Your task to perform on an android device: turn on javascript in the chrome app Image 0: 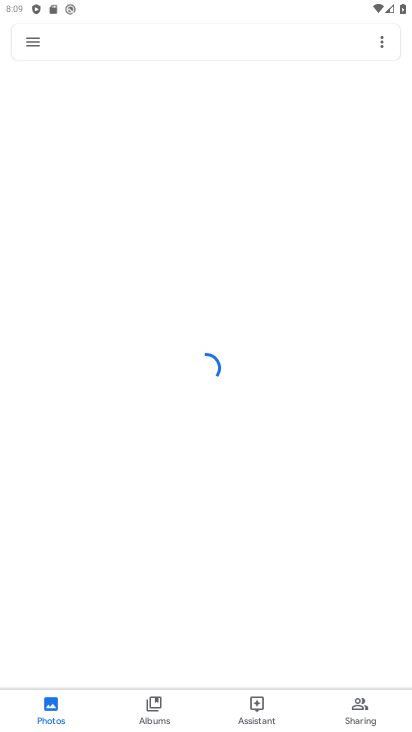
Step 0: press back button
Your task to perform on an android device: turn on javascript in the chrome app Image 1: 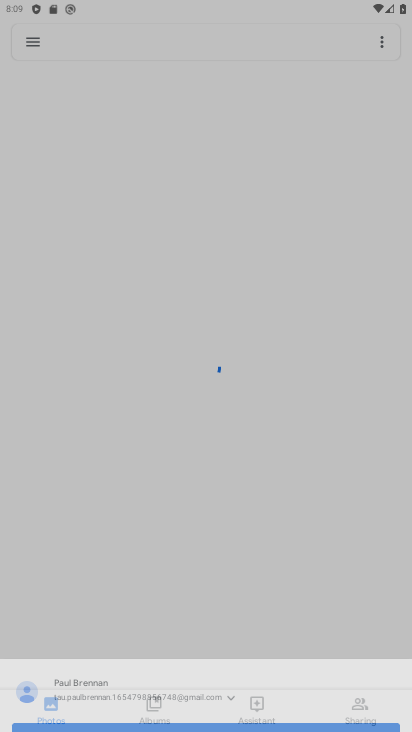
Step 1: press back button
Your task to perform on an android device: turn on javascript in the chrome app Image 2: 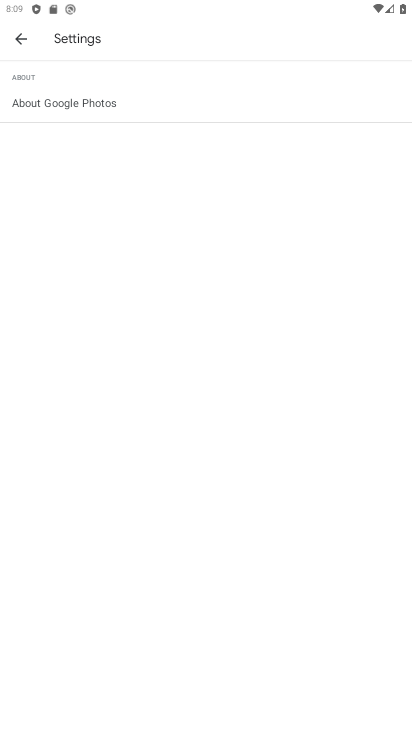
Step 2: click (20, 40)
Your task to perform on an android device: turn on javascript in the chrome app Image 3: 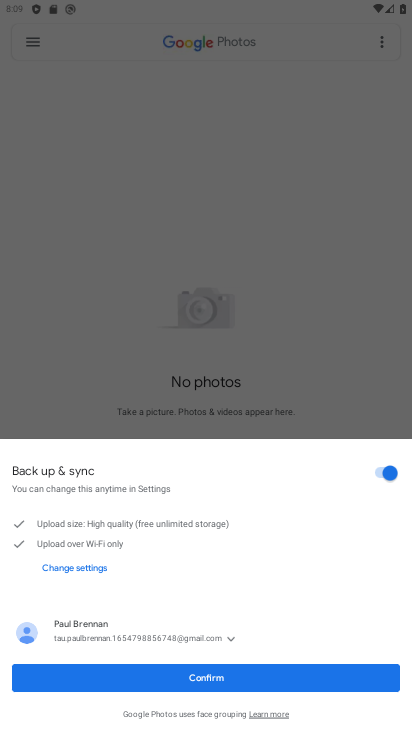
Step 3: click (228, 234)
Your task to perform on an android device: turn on javascript in the chrome app Image 4: 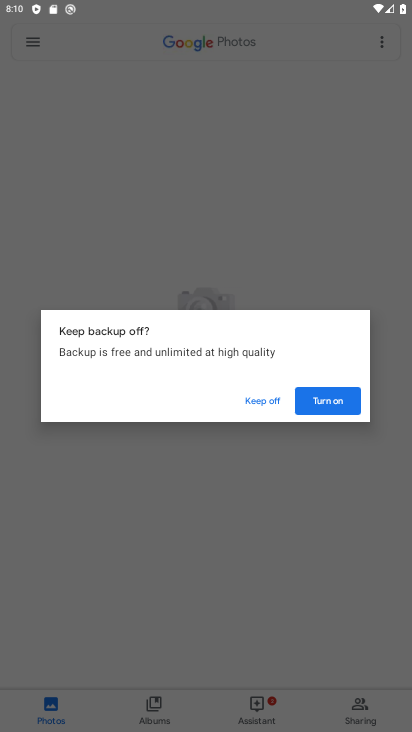
Step 4: click (251, 393)
Your task to perform on an android device: turn on javascript in the chrome app Image 5: 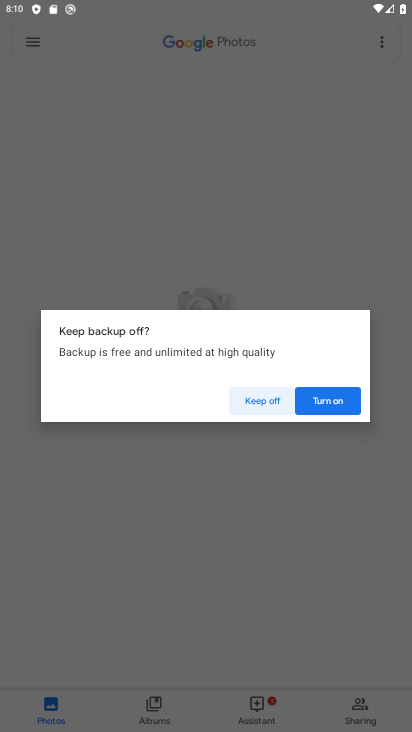
Step 5: click (253, 395)
Your task to perform on an android device: turn on javascript in the chrome app Image 6: 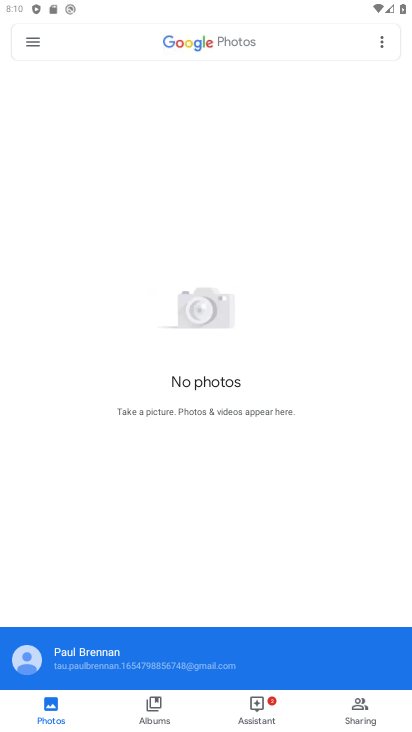
Step 6: click (253, 402)
Your task to perform on an android device: turn on javascript in the chrome app Image 7: 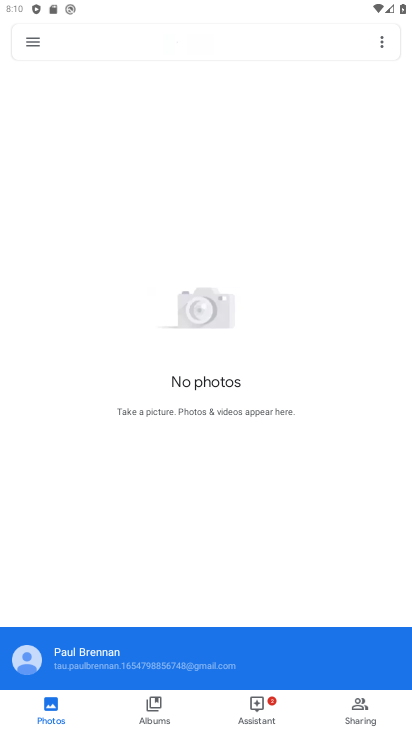
Step 7: press back button
Your task to perform on an android device: turn on javascript in the chrome app Image 8: 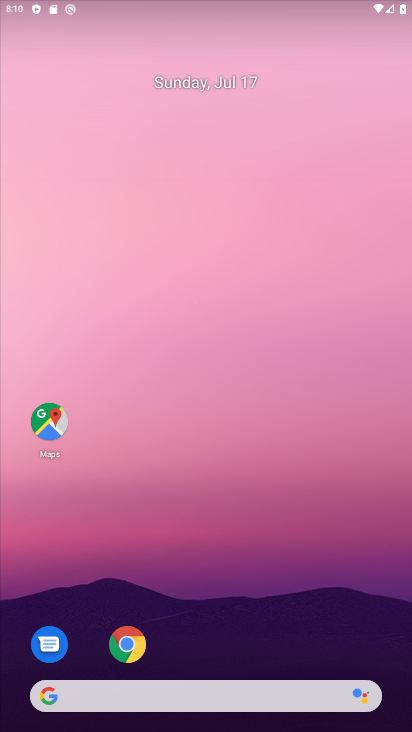
Step 8: drag from (223, 587) to (230, 89)
Your task to perform on an android device: turn on javascript in the chrome app Image 9: 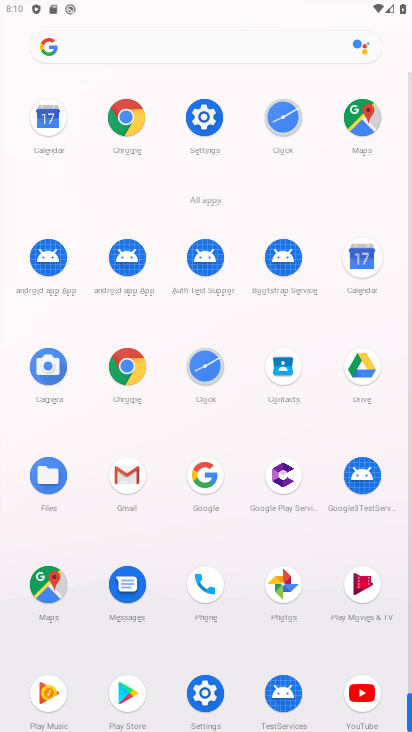
Step 9: click (137, 119)
Your task to perform on an android device: turn on javascript in the chrome app Image 10: 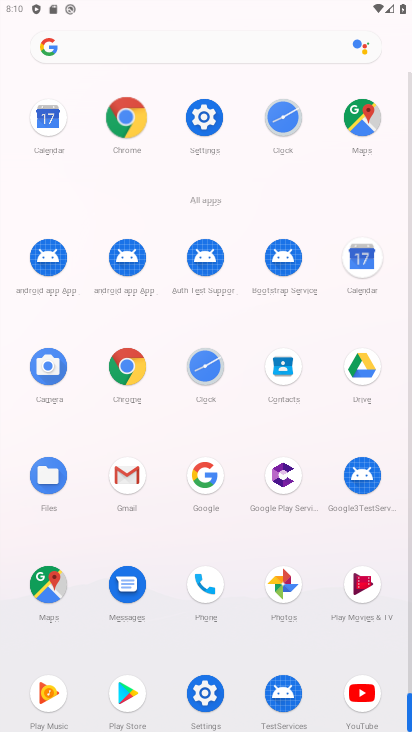
Step 10: click (136, 118)
Your task to perform on an android device: turn on javascript in the chrome app Image 11: 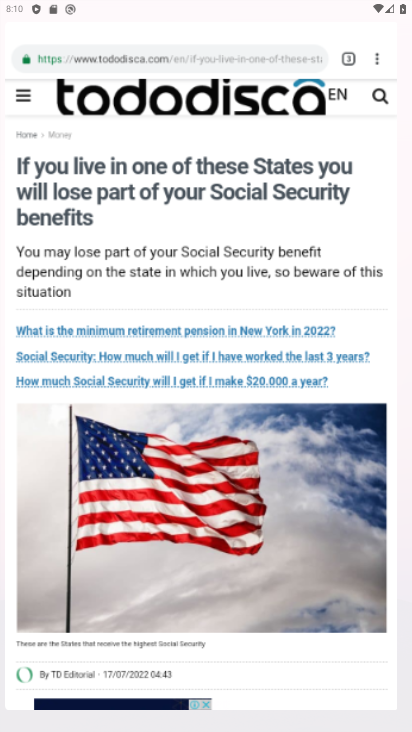
Step 11: click (136, 118)
Your task to perform on an android device: turn on javascript in the chrome app Image 12: 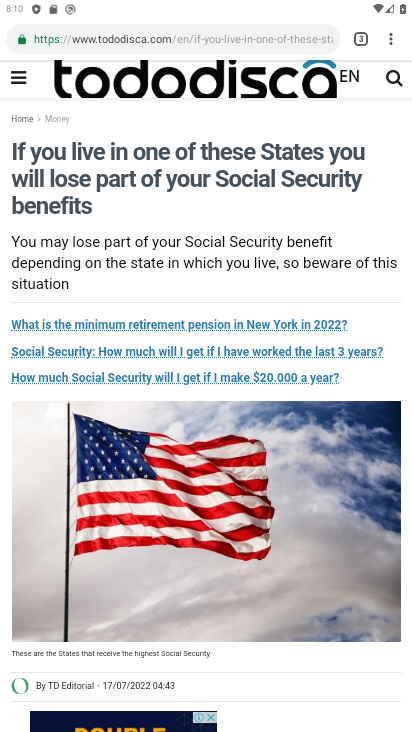
Step 12: drag from (391, 40) to (238, 475)
Your task to perform on an android device: turn on javascript in the chrome app Image 13: 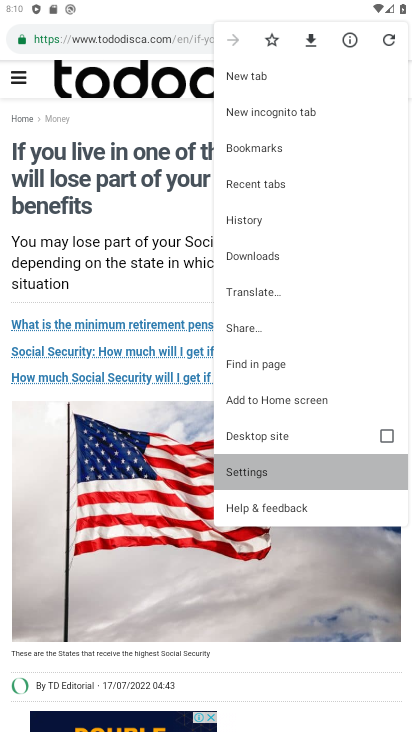
Step 13: click (238, 475)
Your task to perform on an android device: turn on javascript in the chrome app Image 14: 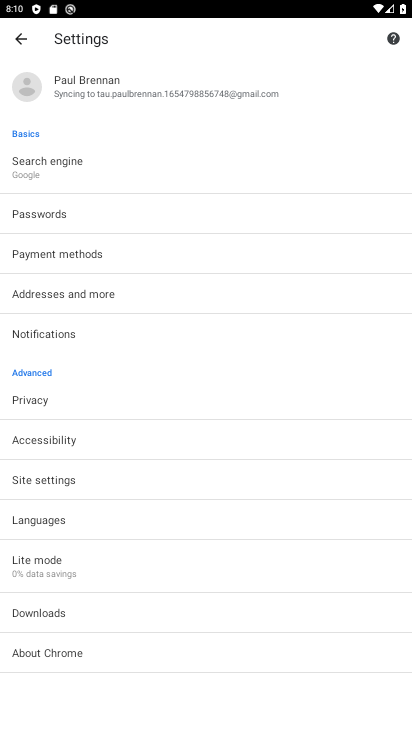
Step 14: drag from (71, 583) to (153, 114)
Your task to perform on an android device: turn on javascript in the chrome app Image 15: 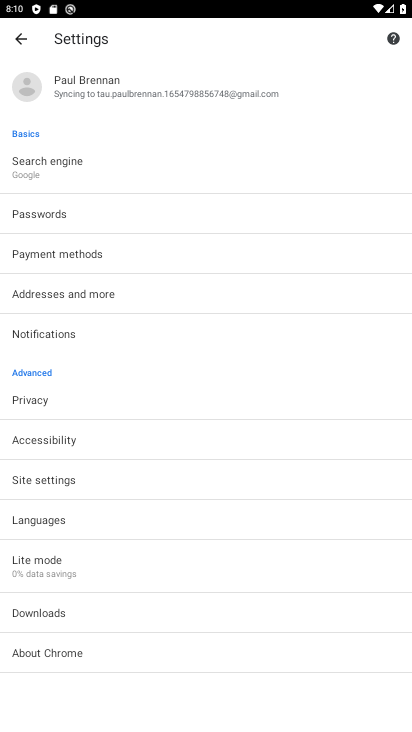
Step 15: drag from (87, 589) to (106, 270)
Your task to perform on an android device: turn on javascript in the chrome app Image 16: 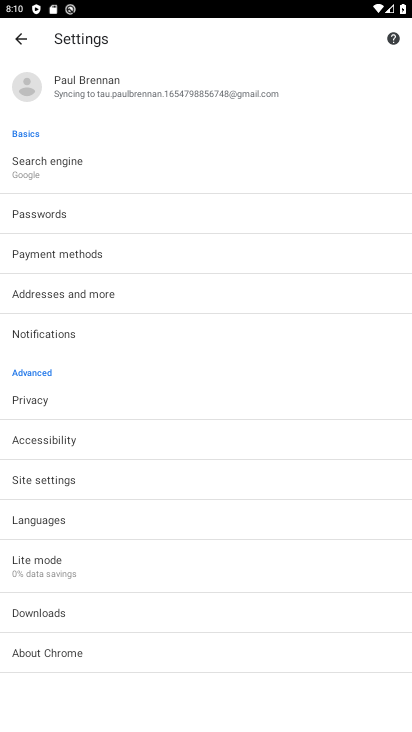
Step 16: click (43, 471)
Your task to perform on an android device: turn on javascript in the chrome app Image 17: 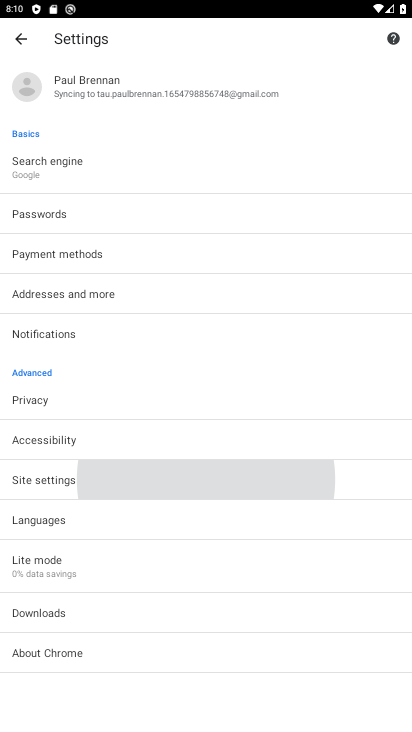
Step 17: click (43, 471)
Your task to perform on an android device: turn on javascript in the chrome app Image 18: 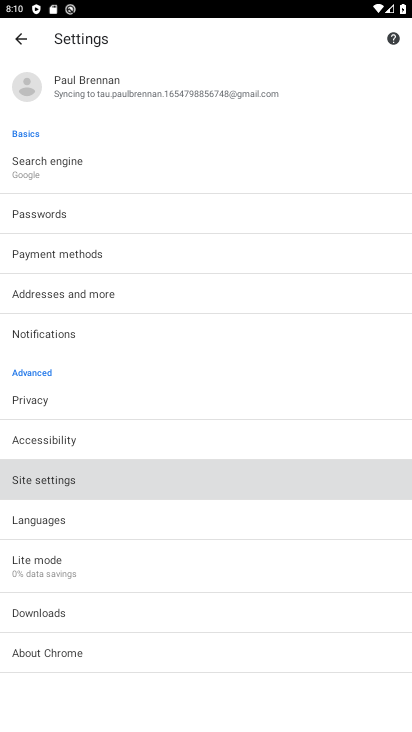
Step 18: click (49, 478)
Your task to perform on an android device: turn on javascript in the chrome app Image 19: 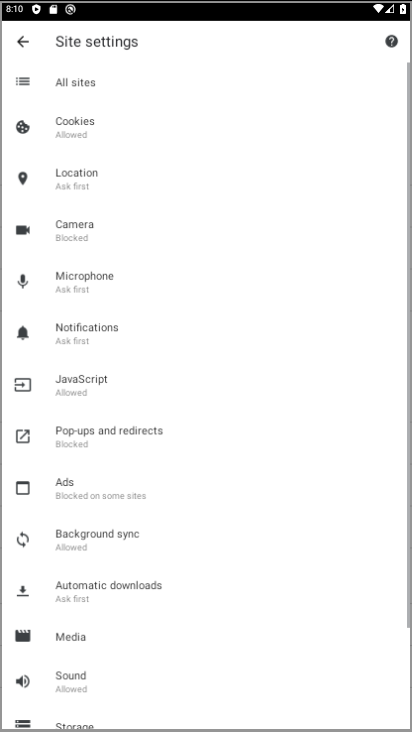
Step 19: click (50, 479)
Your task to perform on an android device: turn on javascript in the chrome app Image 20: 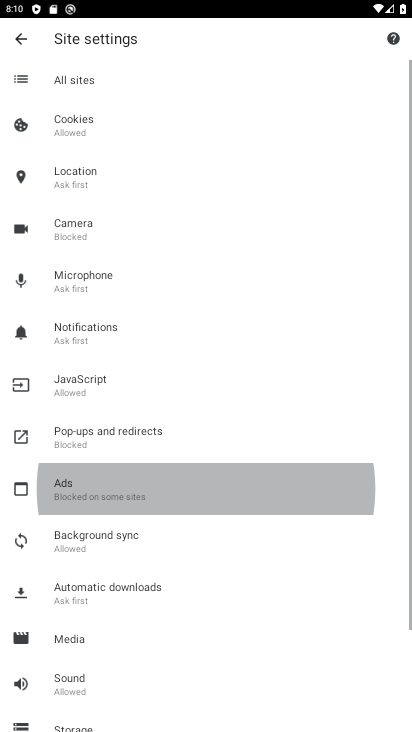
Step 20: click (50, 480)
Your task to perform on an android device: turn on javascript in the chrome app Image 21: 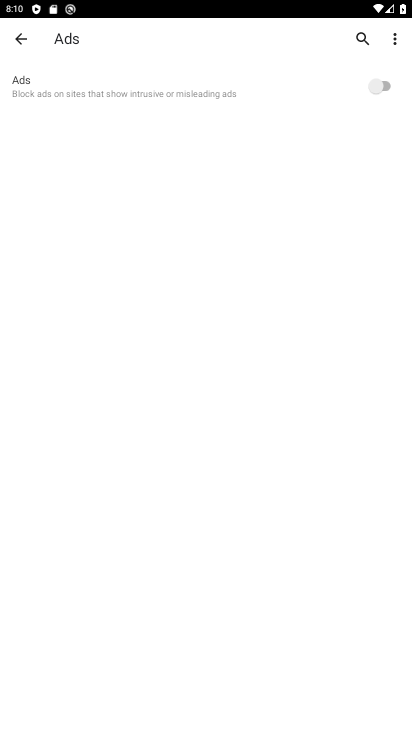
Step 21: click (24, 36)
Your task to perform on an android device: turn on javascript in the chrome app Image 22: 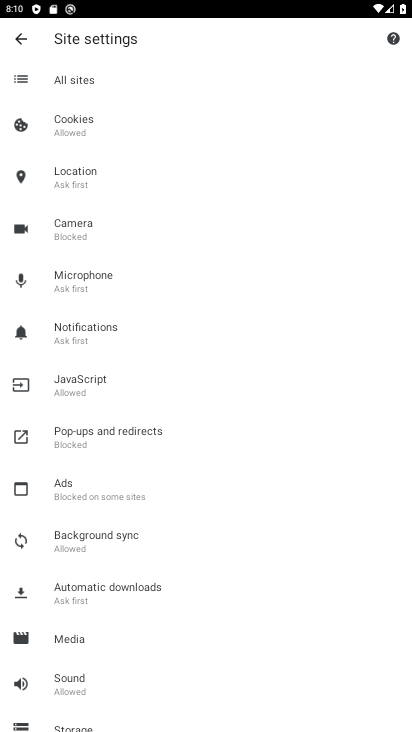
Step 22: click (76, 373)
Your task to perform on an android device: turn on javascript in the chrome app Image 23: 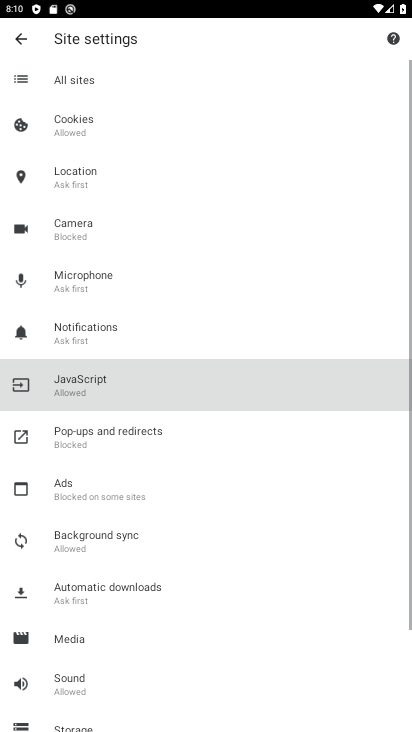
Step 23: click (82, 383)
Your task to perform on an android device: turn on javascript in the chrome app Image 24: 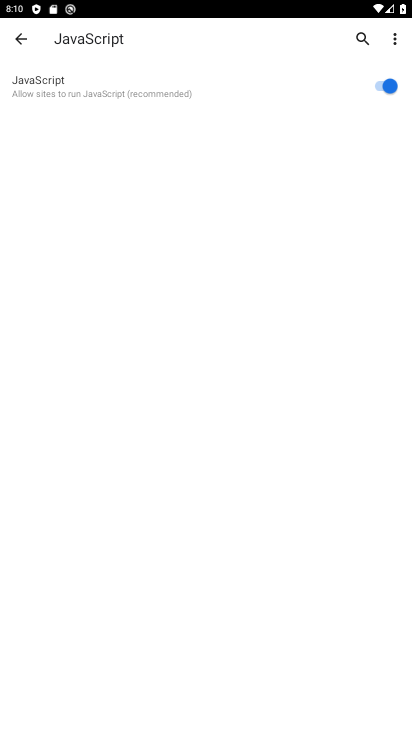
Step 24: task complete